Your task to perform on an android device: turn on airplane mode Image 0: 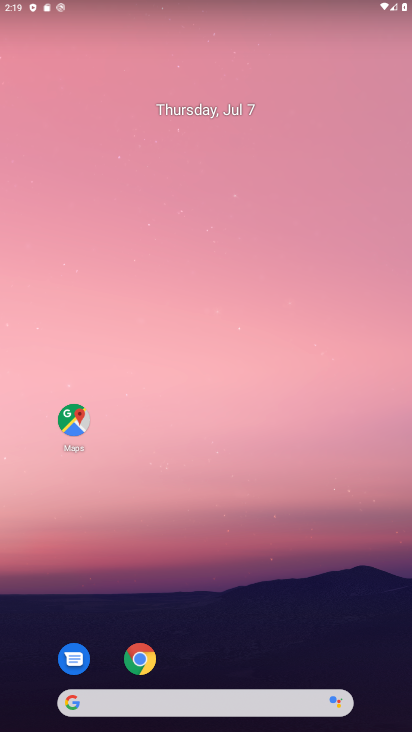
Step 0: drag from (24, 663) to (398, 24)
Your task to perform on an android device: turn on airplane mode Image 1: 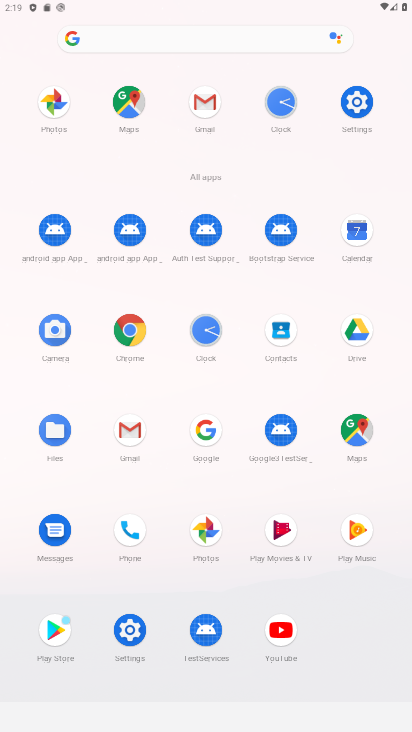
Step 1: click (114, 621)
Your task to perform on an android device: turn on airplane mode Image 2: 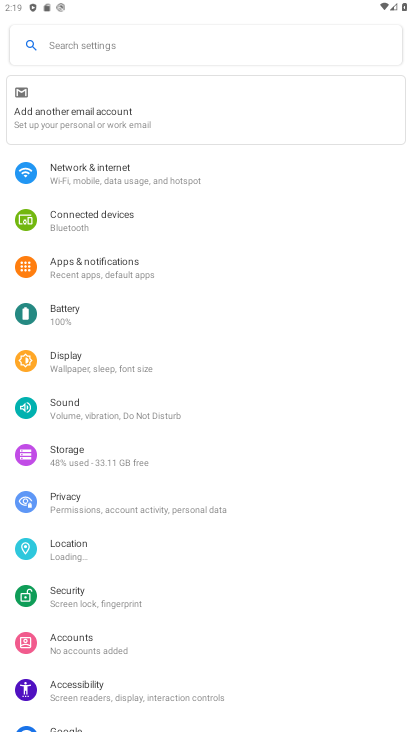
Step 2: click (86, 358)
Your task to perform on an android device: turn on airplane mode Image 3: 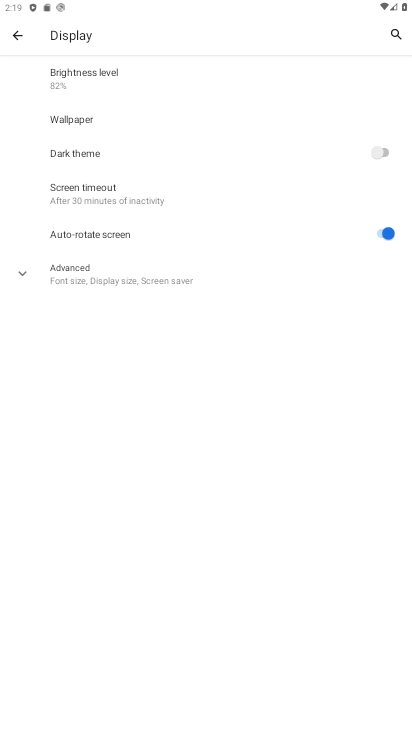
Step 3: click (104, 273)
Your task to perform on an android device: turn on airplane mode Image 4: 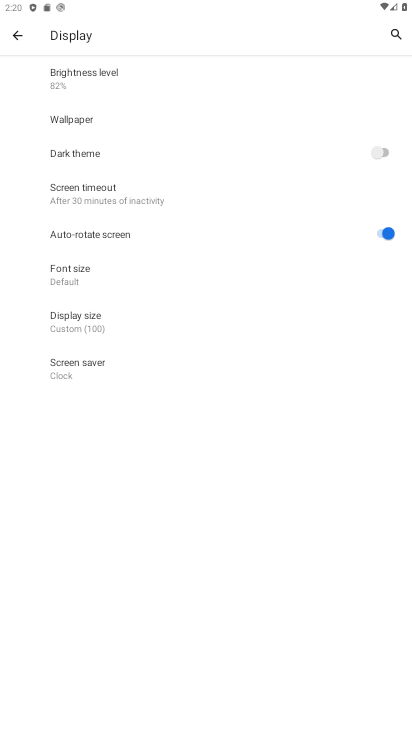
Step 4: click (13, 33)
Your task to perform on an android device: turn on airplane mode Image 5: 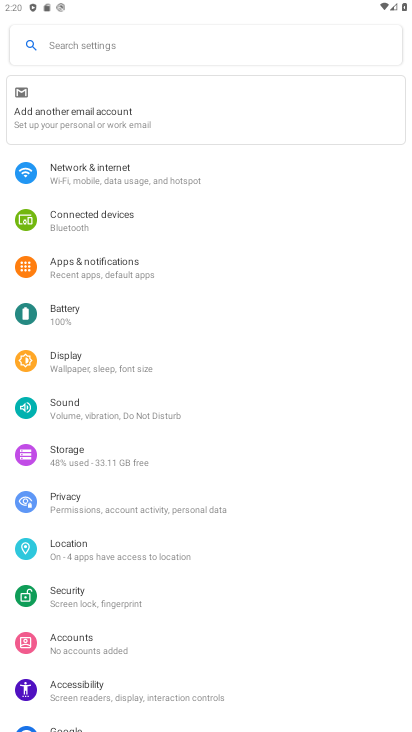
Step 5: drag from (189, 23) to (88, 704)
Your task to perform on an android device: turn on airplane mode Image 6: 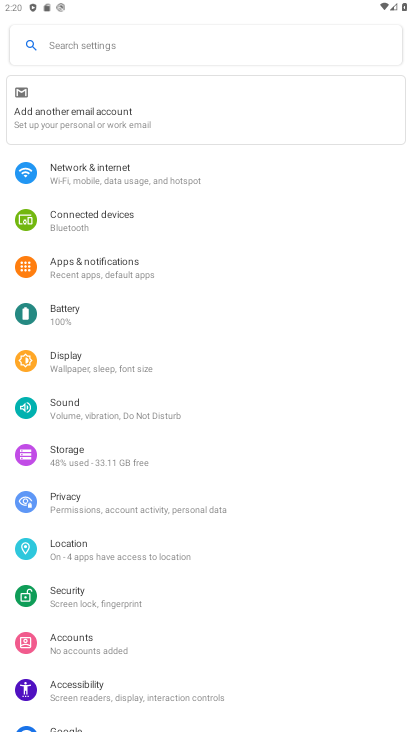
Step 6: click (131, 176)
Your task to perform on an android device: turn on airplane mode Image 7: 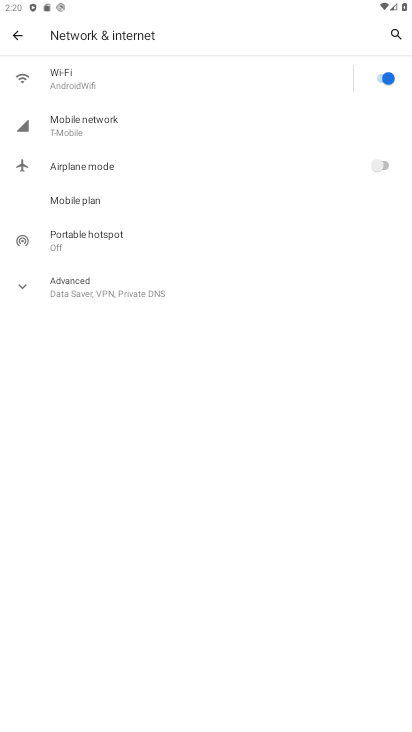
Step 7: click (381, 162)
Your task to perform on an android device: turn on airplane mode Image 8: 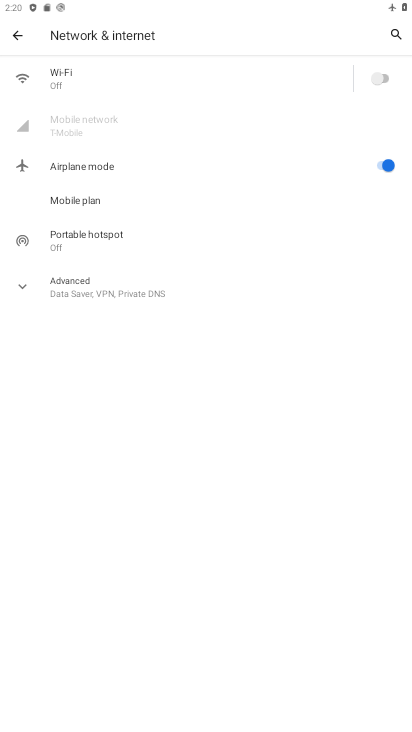
Step 8: task complete